Your task to perform on an android device: set an alarm Image 0: 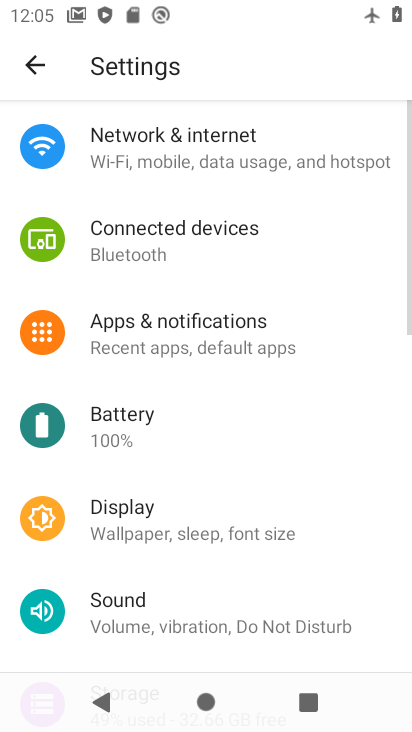
Step 0: press home button
Your task to perform on an android device: set an alarm Image 1: 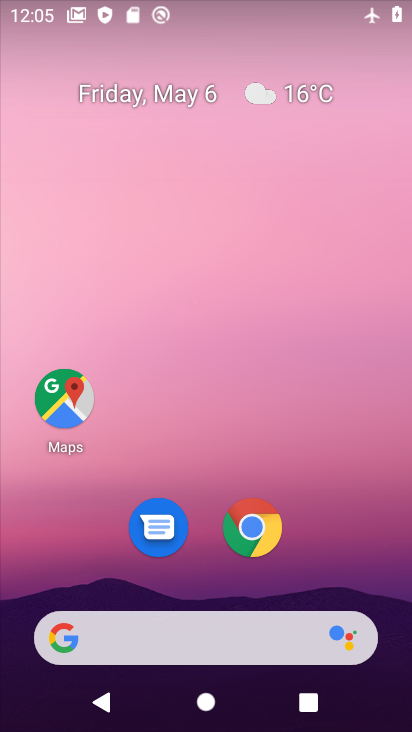
Step 1: drag from (303, 471) to (94, 108)
Your task to perform on an android device: set an alarm Image 2: 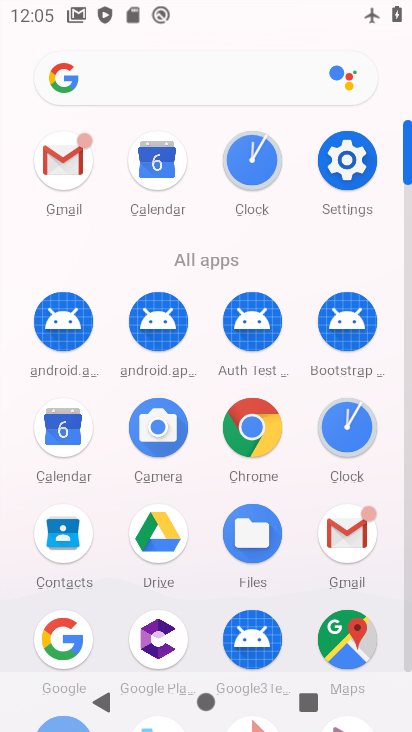
Step 2: click (351, 432)
Your task to perform on an android device: set an alarm Image 3: 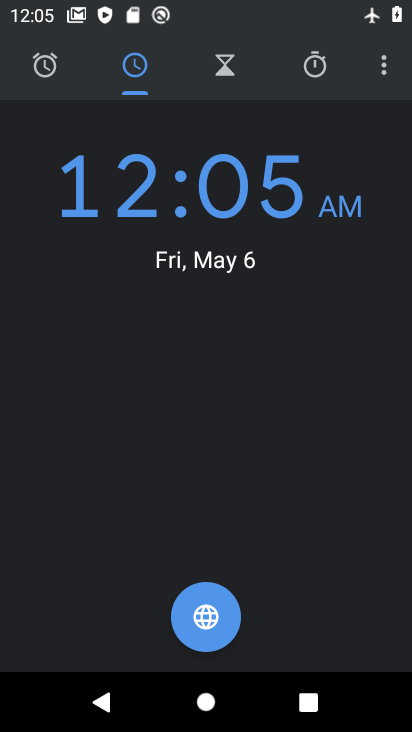
Step 3: click (56, 69)
Your task to perform on an android device: set an alarm Image 4: 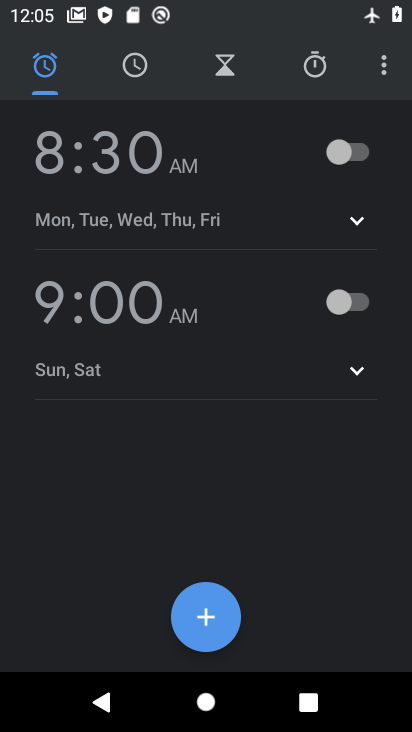
Step 4: click (206, 601)
Your task to perform on an android device: set an alarm Image 5: 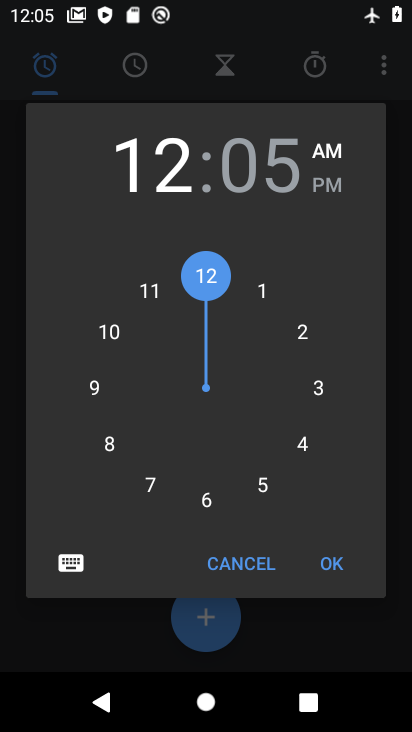
Step 5: click (333, 565)
Your task to perform on an android device: set an alarm Image 6: 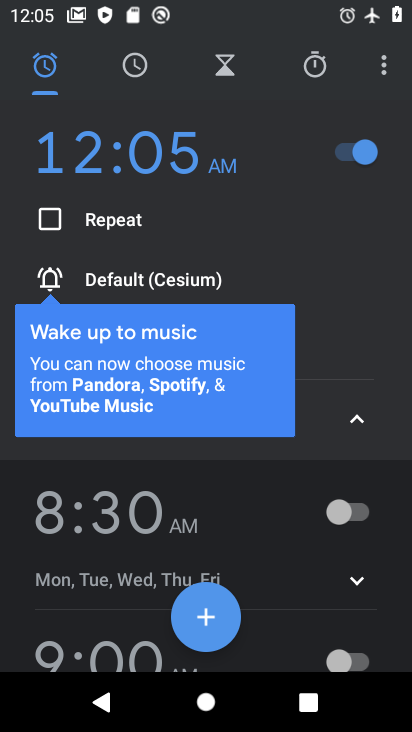
Step 6: click (353, 414)
Your task to perform on an android device: set an alarm Image 7: 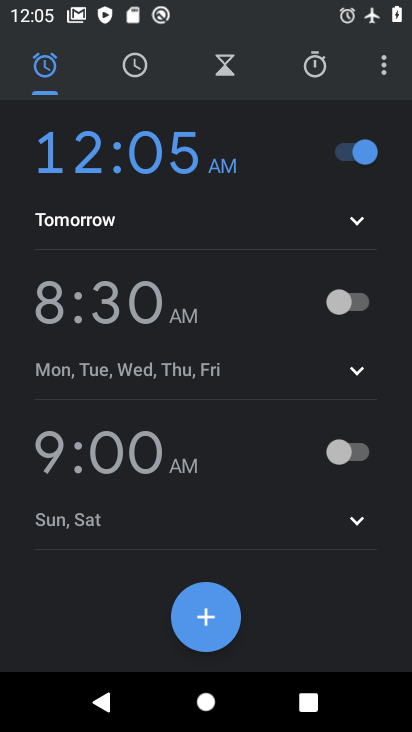
Step 7: task complete